Your task to perform on an android device: star an email in the gmail app Image 0: 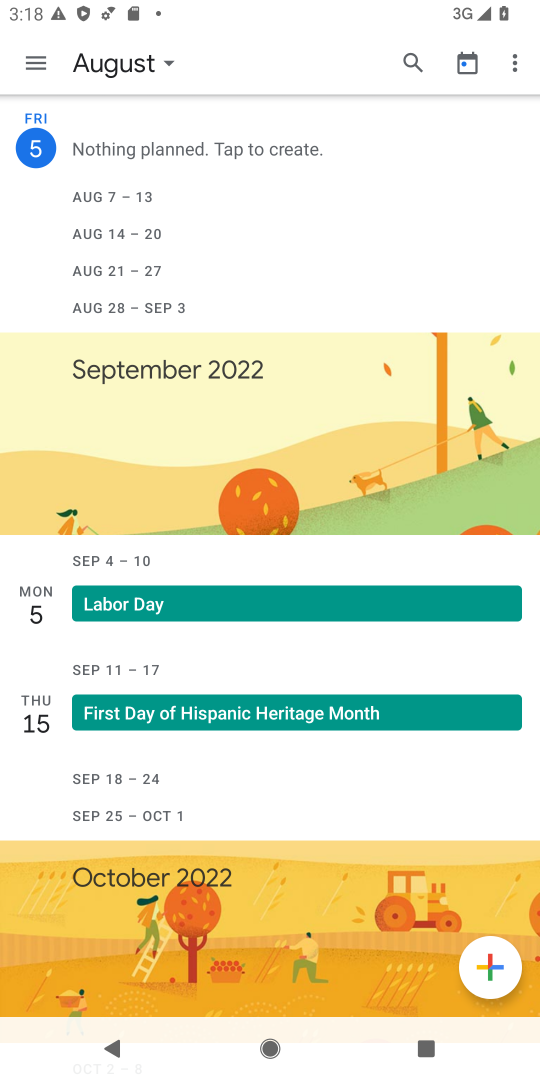
Step 0: press home button
Your task to perform on an android device: star an email in the gmail app Image 1: 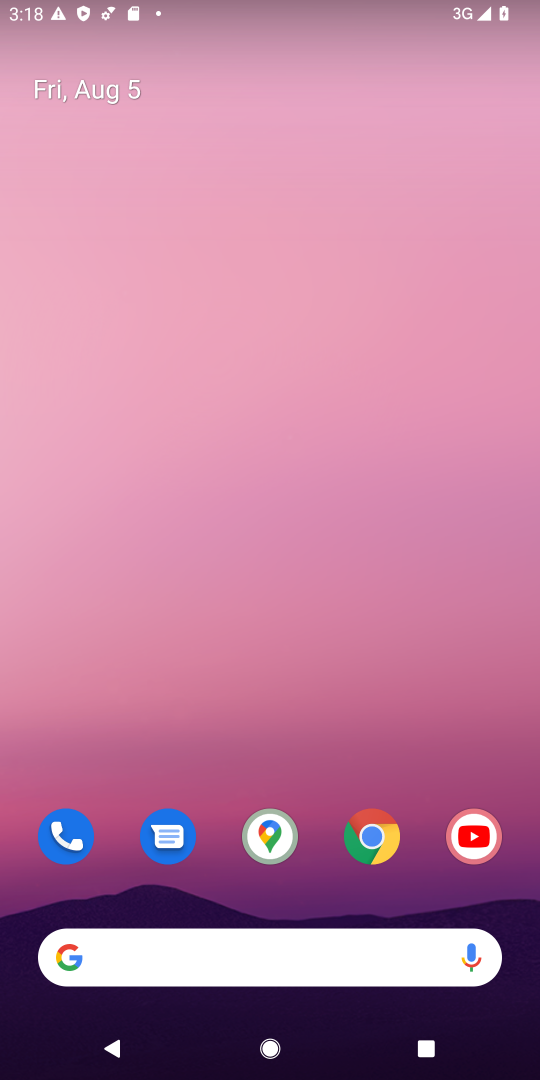
Step 1: drag from (189, 819) to (227, 73)
Your task to perform on an android device: star an email in the gmail app Image 2: 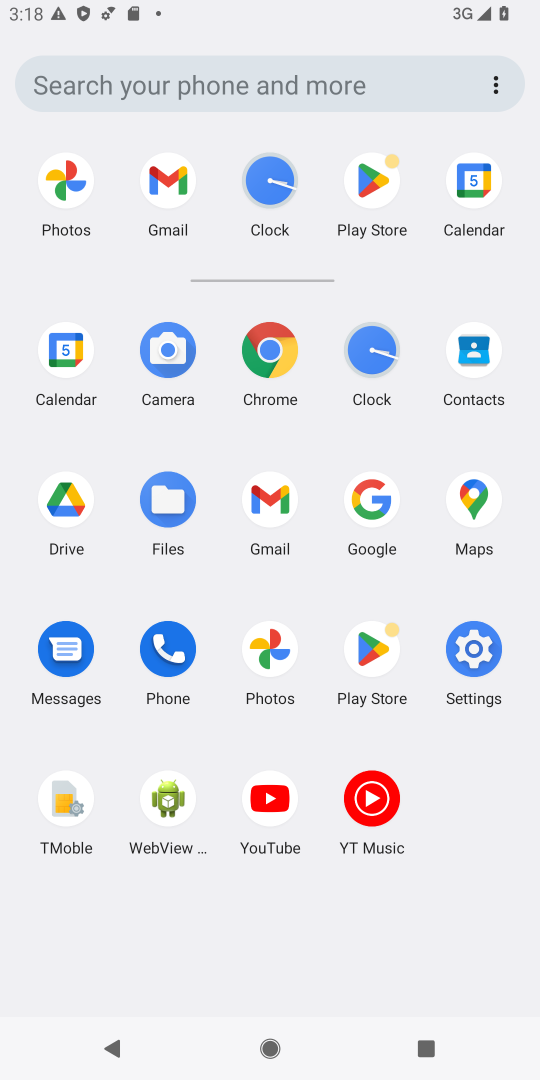
Step 2: click (257, 508)
Your task to perform on an android device: star an email in the gmail app Image 3: 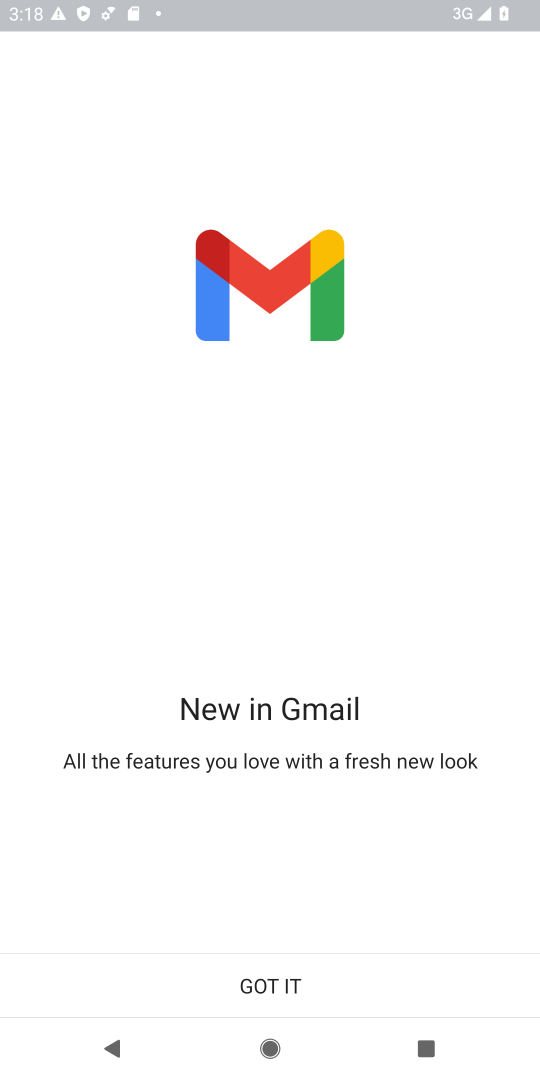
Step 3: click (226, 985)
Your task to perform on an android device: star an email in the gmail app Image 4: 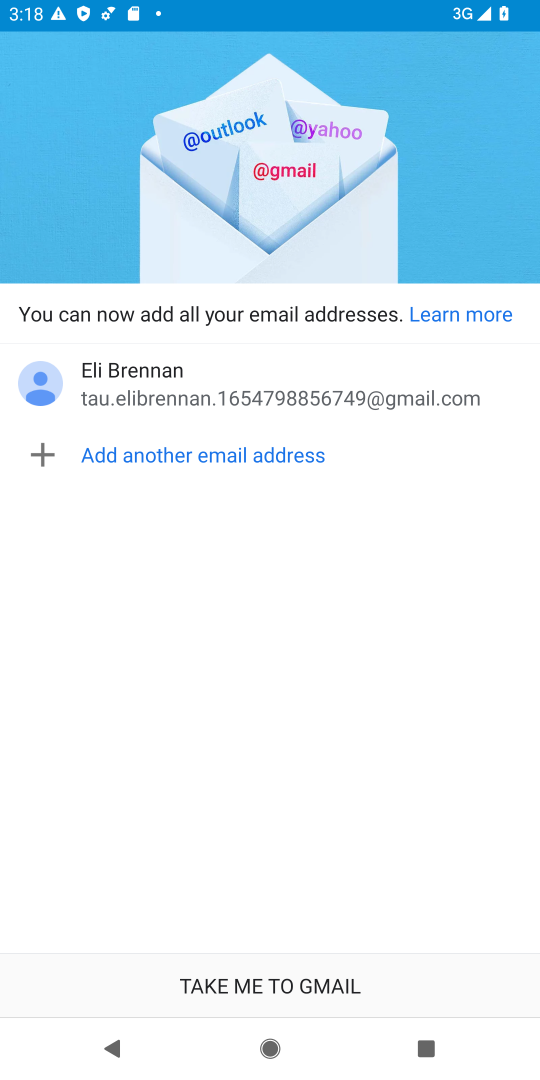
Step 4: click (226, 985)
Your task to perform on an android device: star an email in the gmail app Image 5: 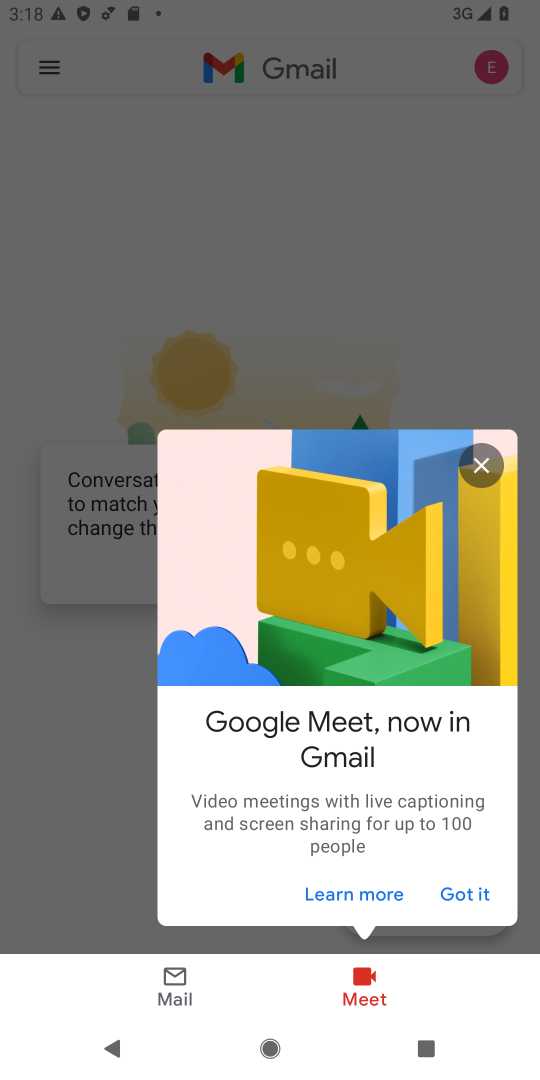
Step 5: click (491, 477)
Your task to perform on an android device: star an email in the gmail app Image 6: 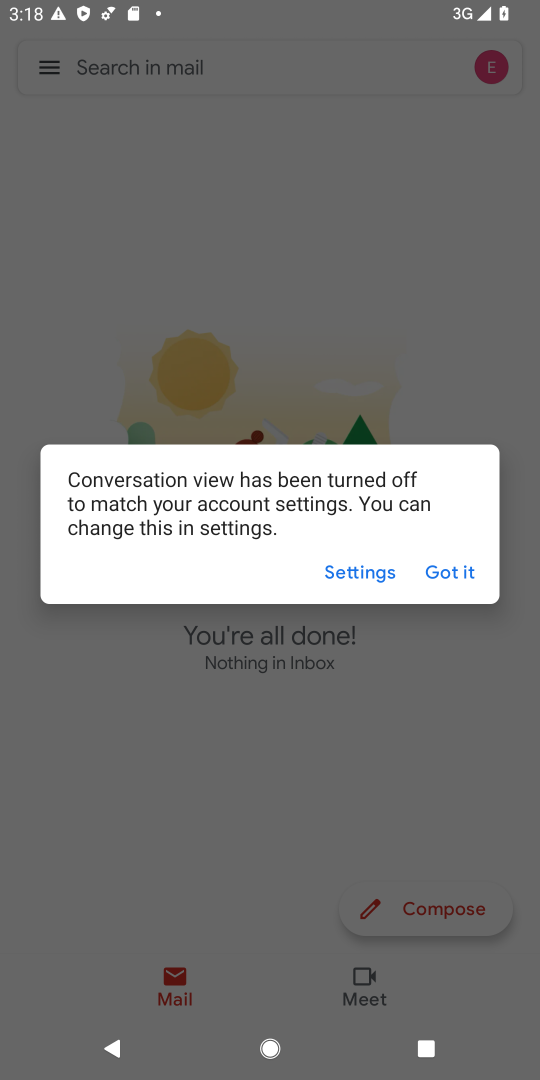
Step 6: click (445, 573)
Your task to perform on an android device: star an email in the gmail app Image 7: 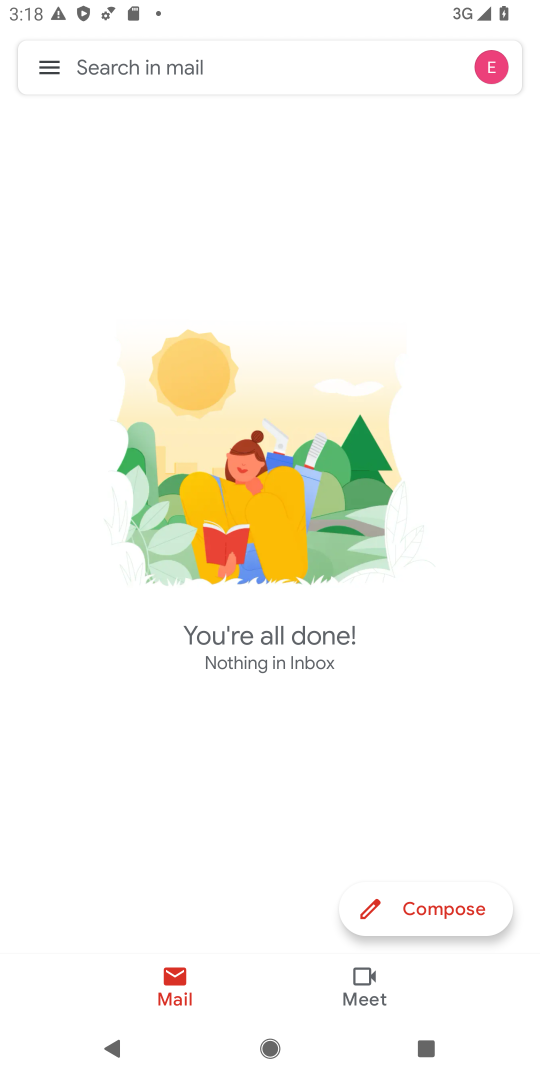
Step 7: task complete